Your task to perform on an android device: open app "McDonald's" (install if not already installed) and go to login screen Image 0: 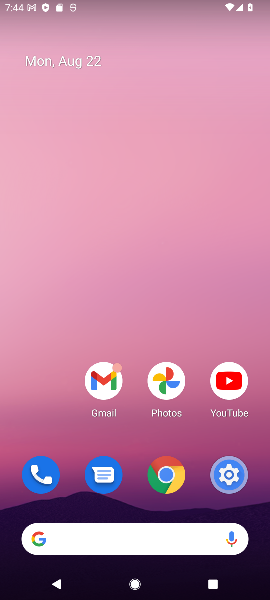
Step 0: drag from (136, 516) to (86, 52)
Your task to perform on an android device: open app "McDonald's" (install if not already installed) and go to login screen Image 1: 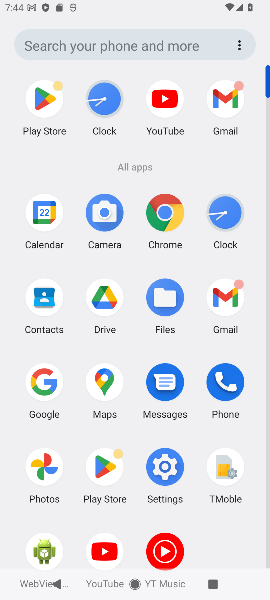
Step 1: click (104, 475)
Your task to perform on an android device: open app "McDonald's" (install if not already installed) and go to login screen Image 2: 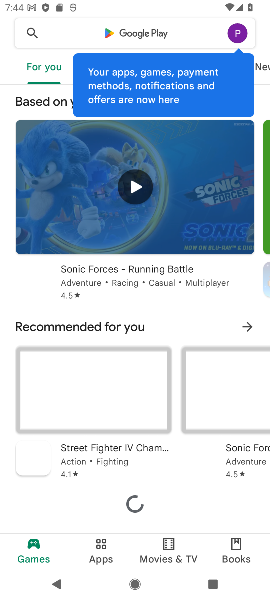
Step 2: click (124, 28)
Your task to perform on an android device: open app "McDonald's" (install if not already installed) and go to login screen Image 3: 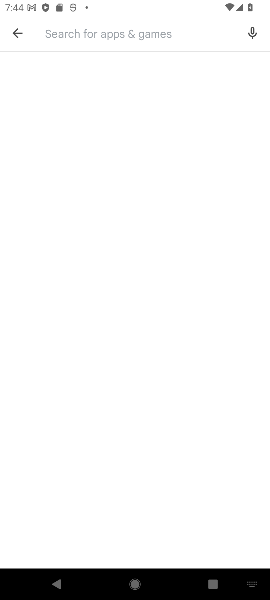
Step 3: type "Mcdonalds"
Your task to perform on an android device: open app "McDonald's" (install if not already installed) and go to login screen Image 4: 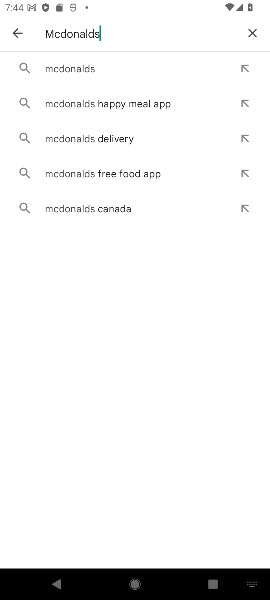
Step 4: click (89, 81)
Your task to perform on an android device: open app "McDonald's" (install if not already installed) and go to login screen Image 5: 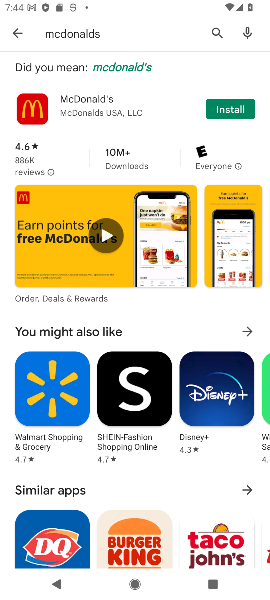
Step 5: click (229, 107)
Your task to perform on an android device: open app "McDonald's" (install if not already installed) and go to login screen Image 6: 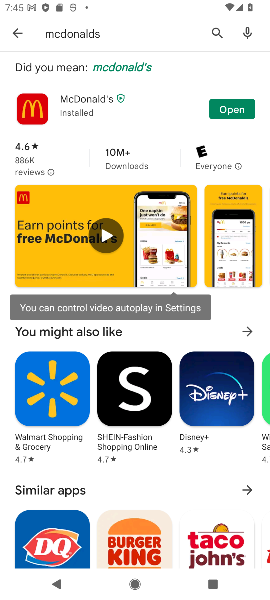
Step 6: click (233, 111)
Your task to perform on an android device: open app "McDonald's" (install if not already installed) and go to login screen Image 7: 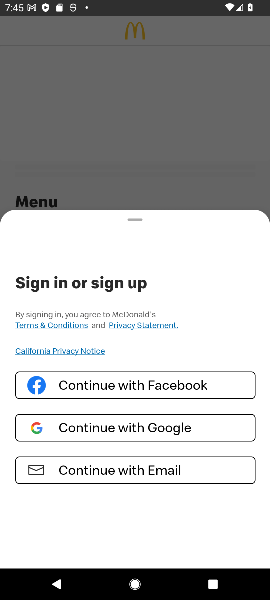
Step 7: click (163, 466)
Your task to perform on an android device: open app "McDonald's" (install if not already installed) and go to login screen Image 8: 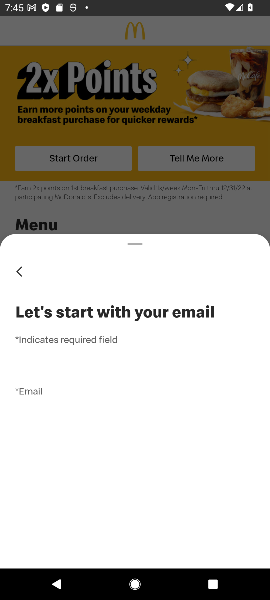
Step 8: click (22, 268)
Your task to perform on an android device: open app "McDonald's" (install if not already installed) and go to login screen Image 9: 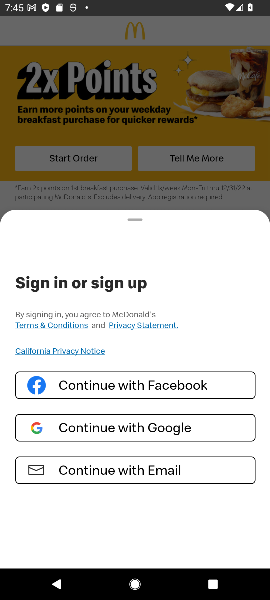
Step 9: click (139, 425)
Your task to perform on an android device: open app "McDonald's" (install if not already installed) and go to login screen Image 10: 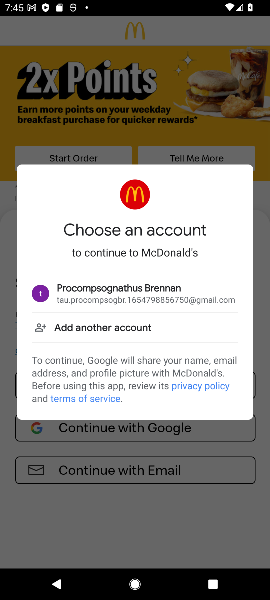
Step 10: click (117, 291)
Your task to perform on an android device: open app "McDonald's" (install if not already installed) and go to login screen Image 11: 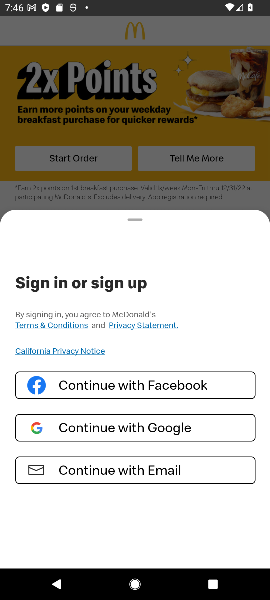
Step 11: click (153, 424)
Your task to perform on an android device: open app "McDonald's" (install if not already installed) and go to login screen Image 12: 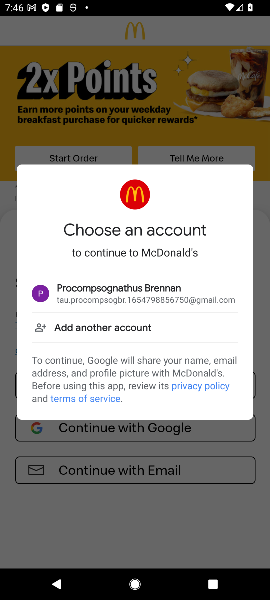
Step 12: click (153, 299)
Your task to perform on an android device: open app "McDonald's" (install if not already installed) and go to login screen Image 13: 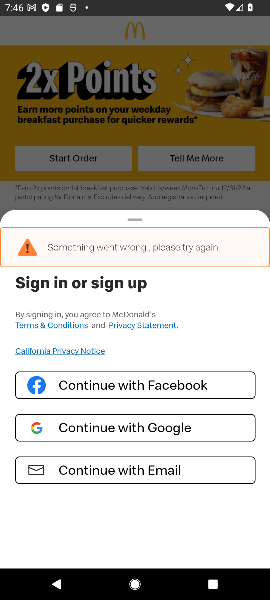
Step 13: task complete